Your task to perform on an android device: turn on bluetooth scan Image 0: 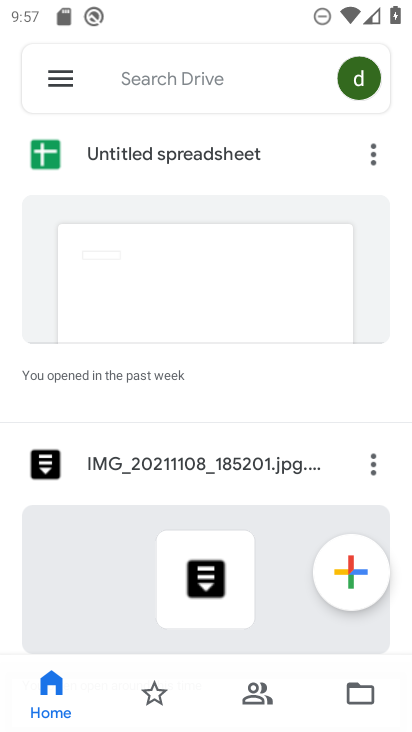
Step 0: press home button
Your task to perform on an android device: turn on bluetooth scan Image 1: 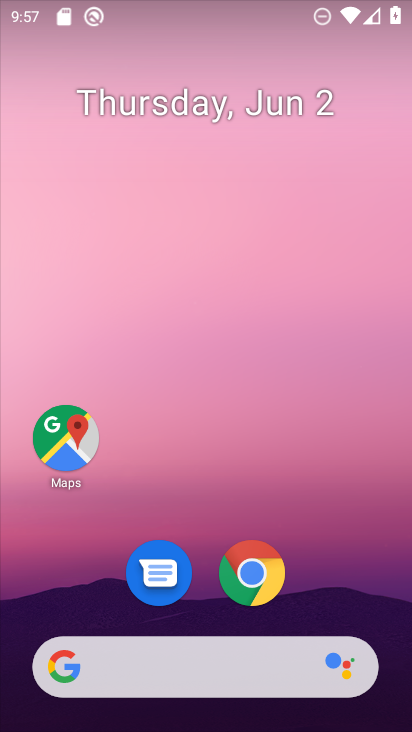
Step 1: drag from (342, 598) to (270, 228)
Your task to perform on an android device: turn on bluetooth scan Image 2: 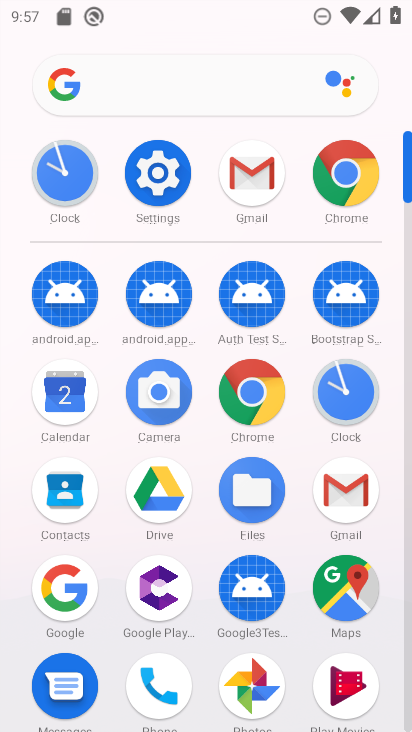
Step 2: click (171, 177)
Your task to perform on an android device: turn on bluetooth scan Image 3: 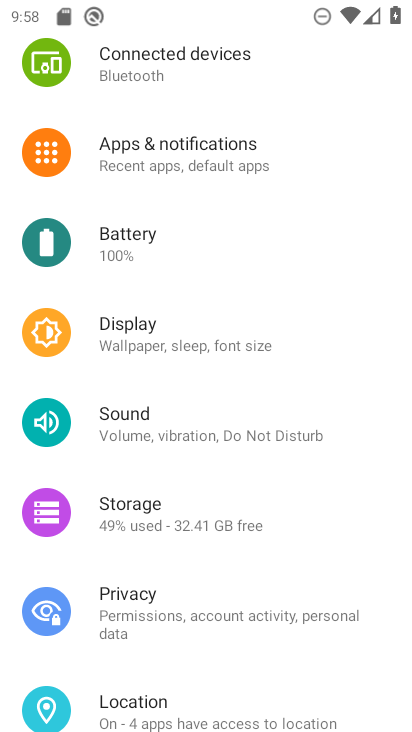
Step 3: click (140, 700)
Your task to perform on an android device: turn on bluetooth scan Image 4: 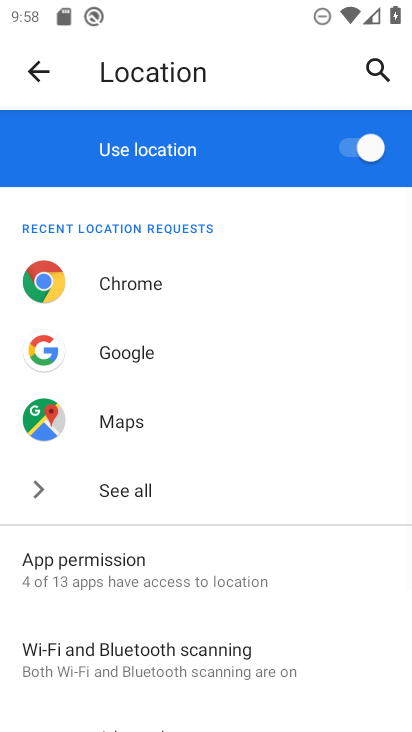
Step 4: click (169, 647)
Your task to perform on an android device: turn on bluetooth scan Image 5: 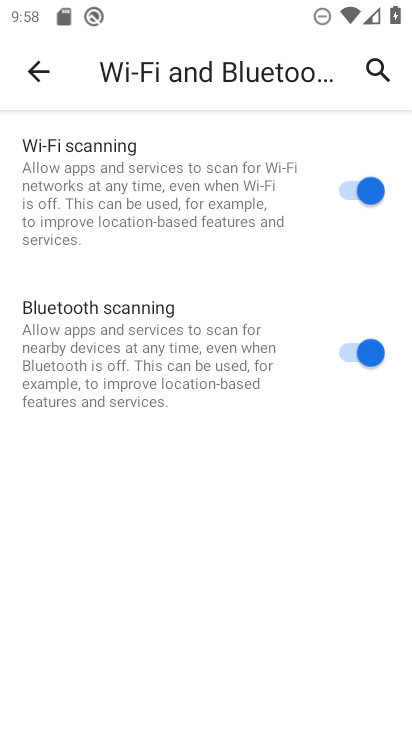
Step 5: task complete